Your task to perform on an android device: snooze an email in the gmail app Image 0: 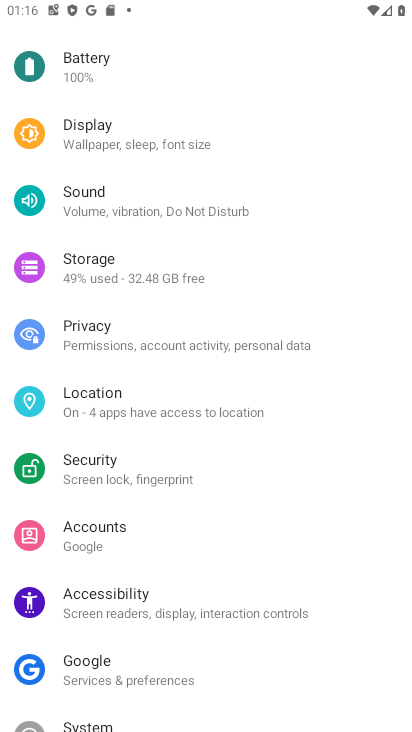
Step 0: press home button
Your task to perform on an android device: snooze an email in the gmail app Image 1: 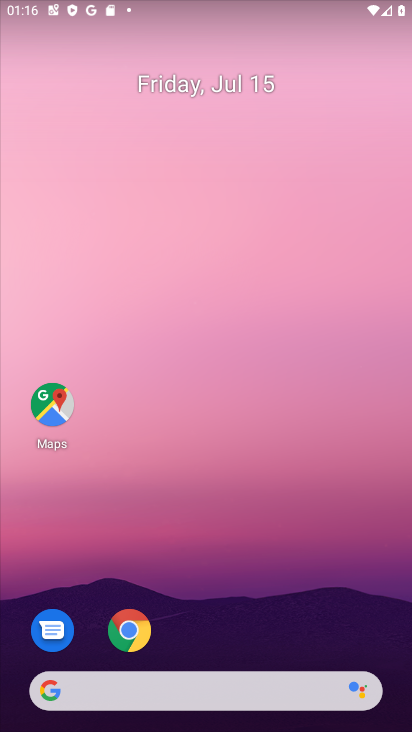
Step 1: drag from (255, 651) to (238, 237)
Your task to perform on an android device: snooze an email in the gmail app Image 2: 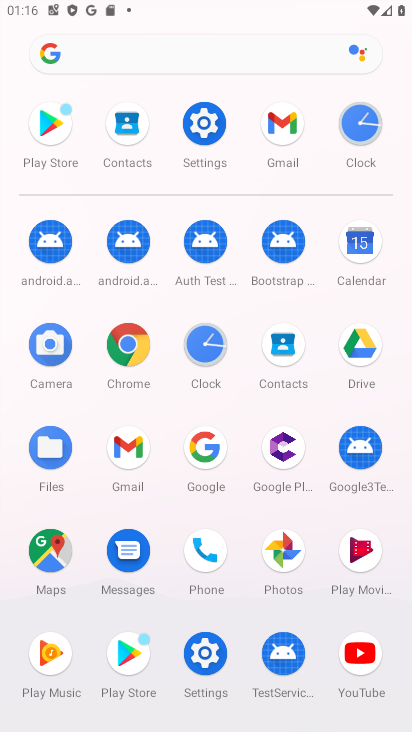
Step 2: click (271, 164)
Your task to perform on an android device: snooze an email in the gmail app Image 3: 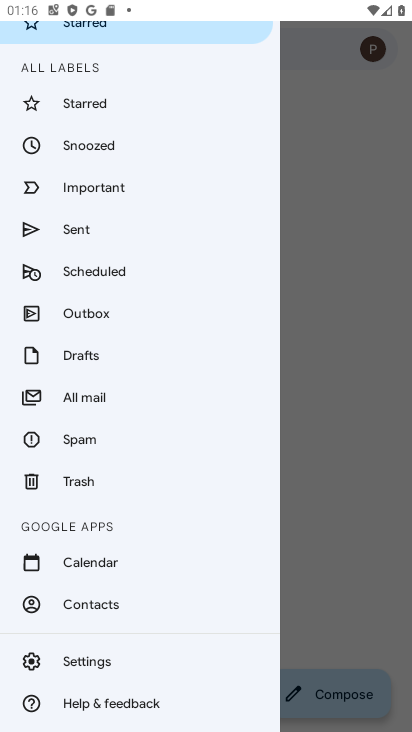
Step 3: task complete